Your task to perform on an android device: open chrome privacy settings Image 0: 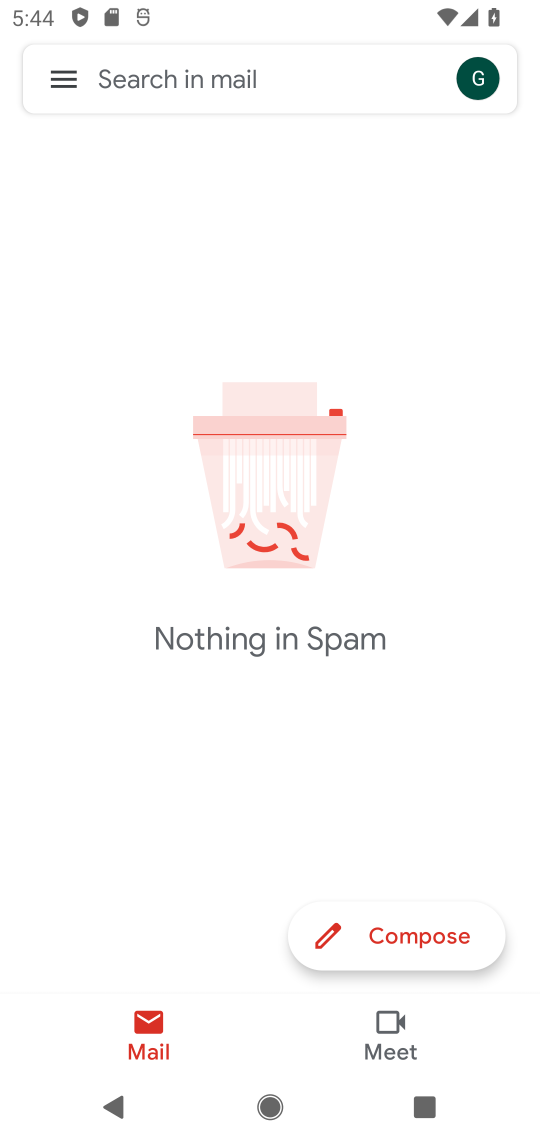
Step 0: press back button
Your task to perform on an android device: open chrome privacy settings Image 1: 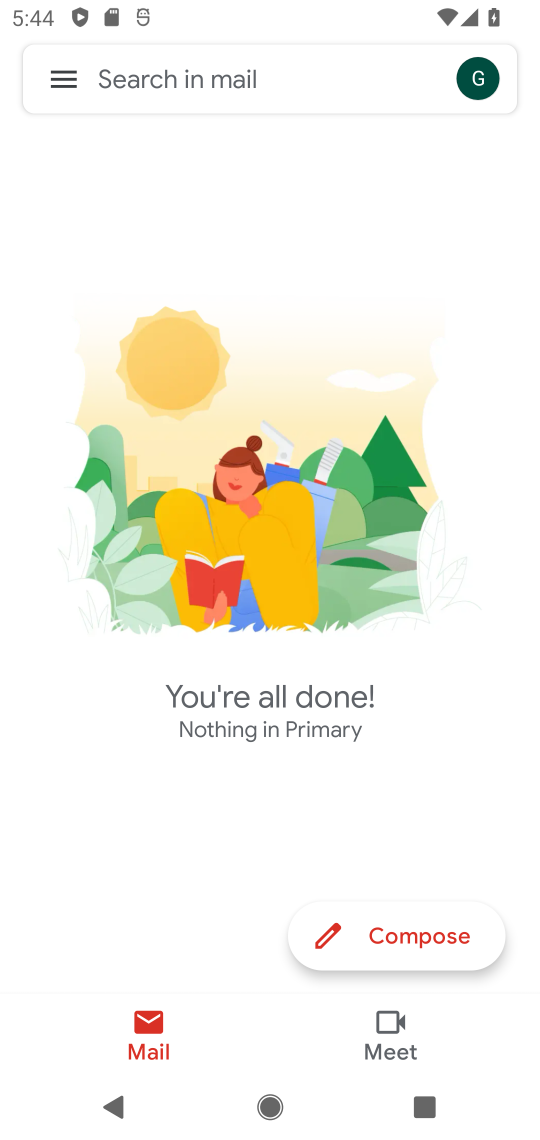
Step 1: press home button
Your task to perform on an android device: open chrome privacy settings Image 2: 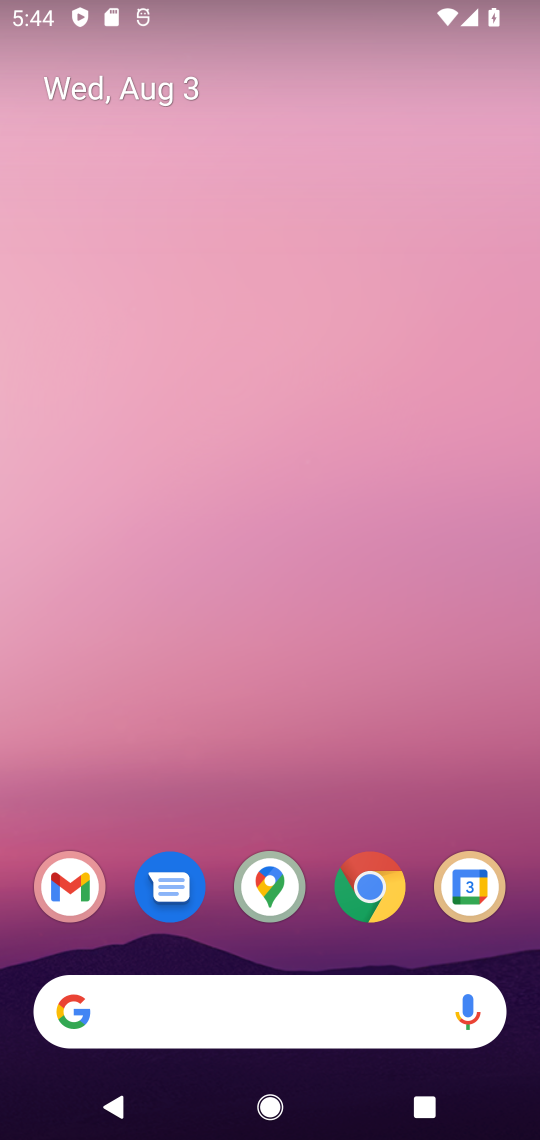
Step 2: drag from (201, 958) to (155, 86)
Your task to perform on an android device: open chrome privacy settings Image 3: 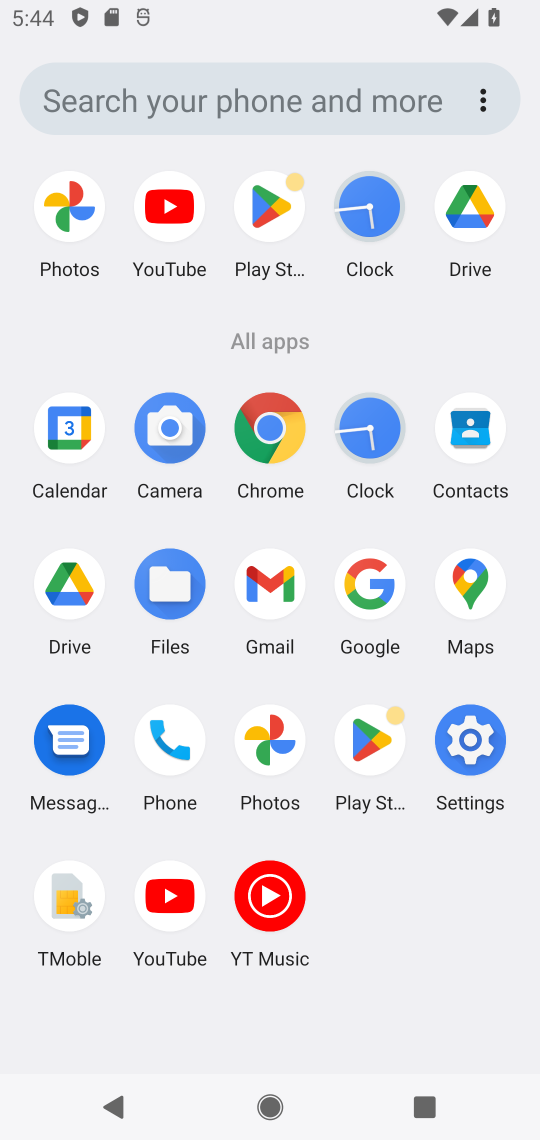
Step 3: click (260, 455)
Your task to perform on an android device: open chrome privacy settings Image 4: 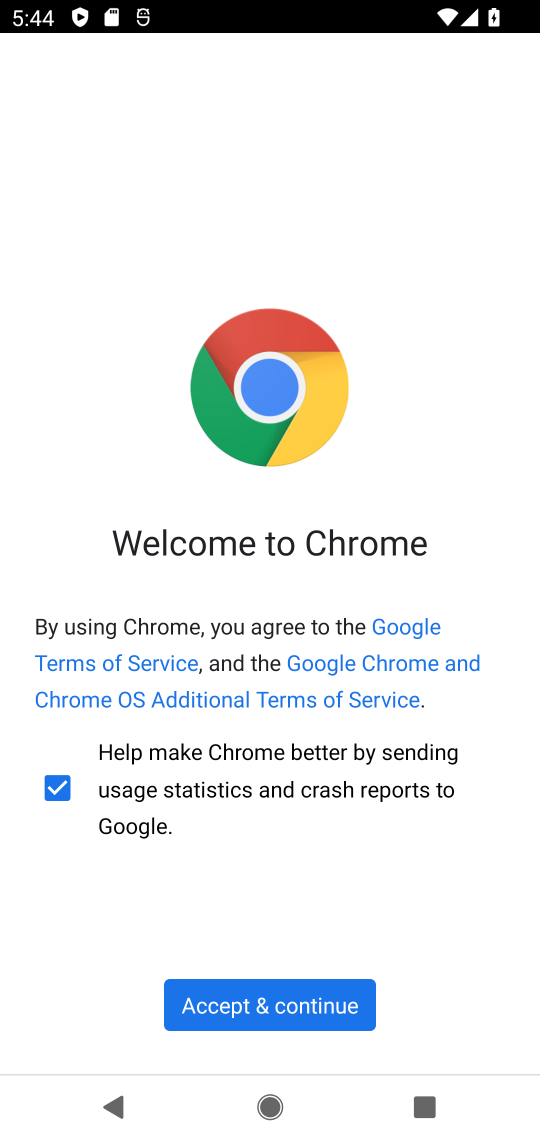
Step 4: click (278, 994)
Your task to perform on an android device: open chrome privacy settings Image 5: 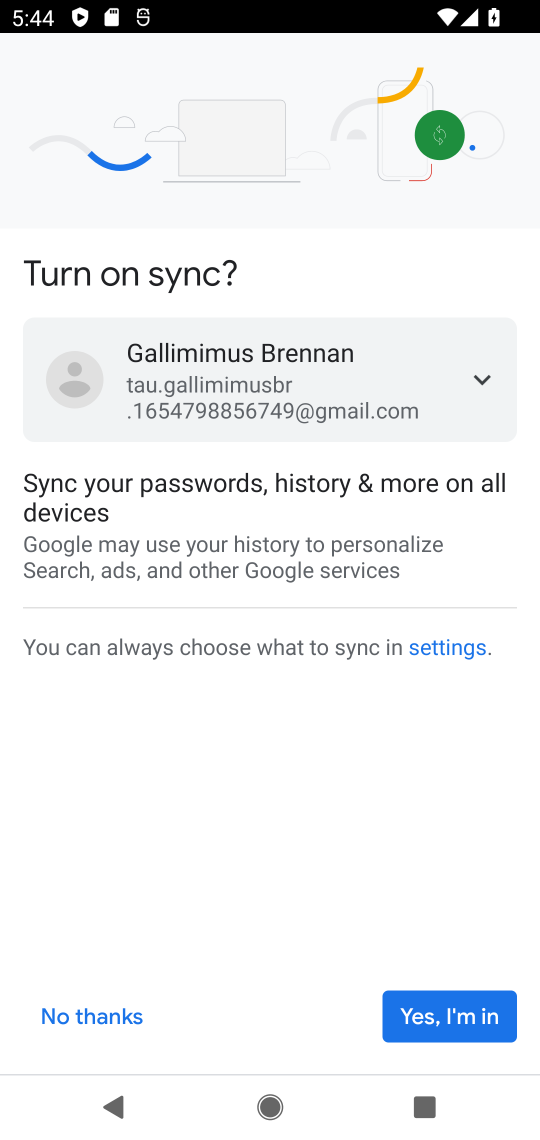
Step 5: click (401, 1017)
Your task to perform on an android device: open chrome privacy settings Image 6: 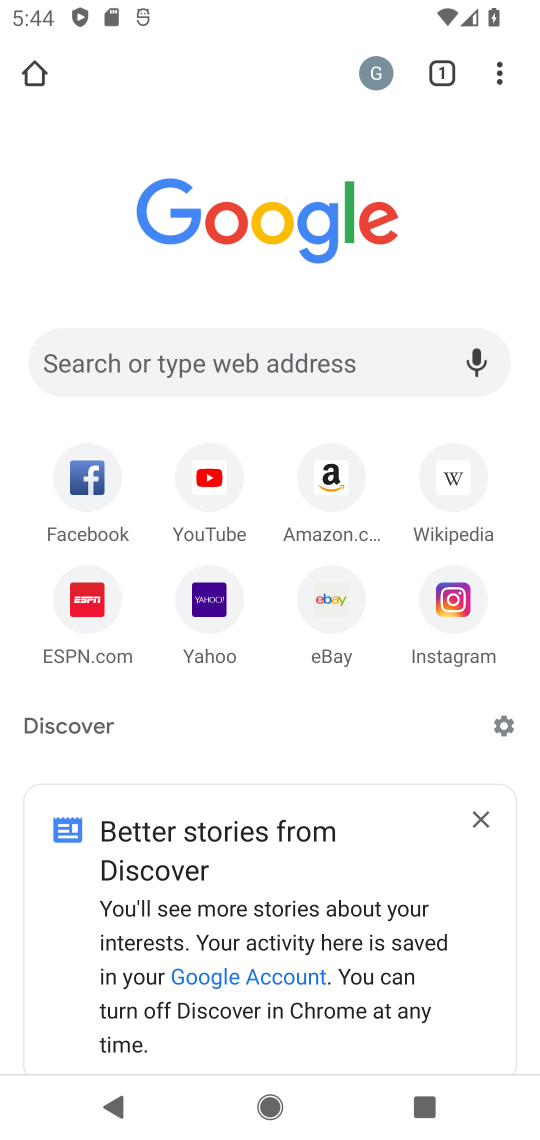
Step 6: drag from (508, 75) to (250, 657)
Your task to perform on an android device: open chrome privacy settings Image 7: 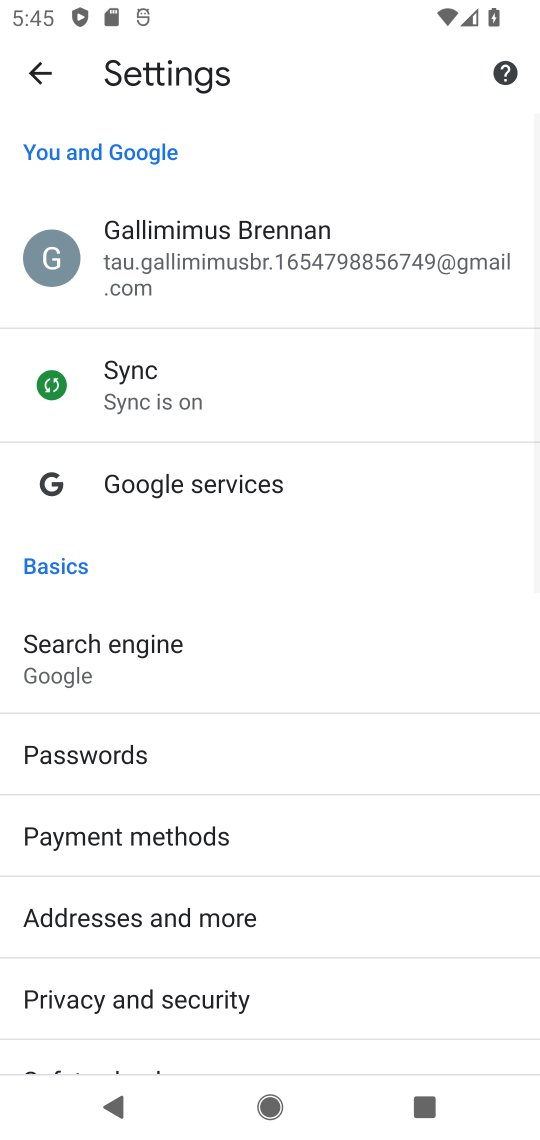
Step 7: drag from (210, 874) to (128, 162)
Your task to perform on an android device: open chrome privacy settings Image 8: 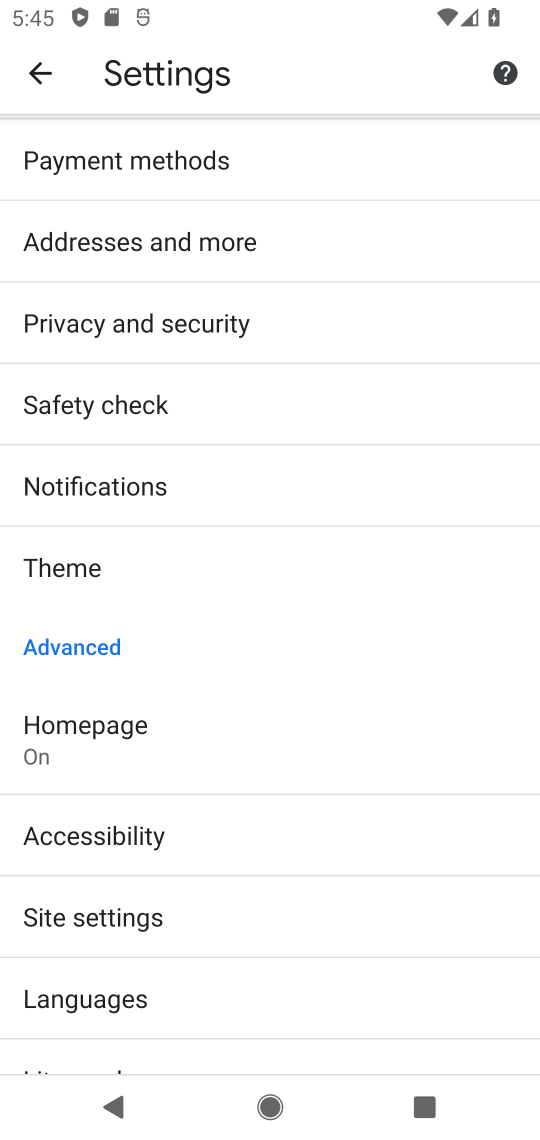
Step 8: drag from (134, 900) to (159, 246)
Your task to perform on an android device: open chrome privacy settings Image 9: 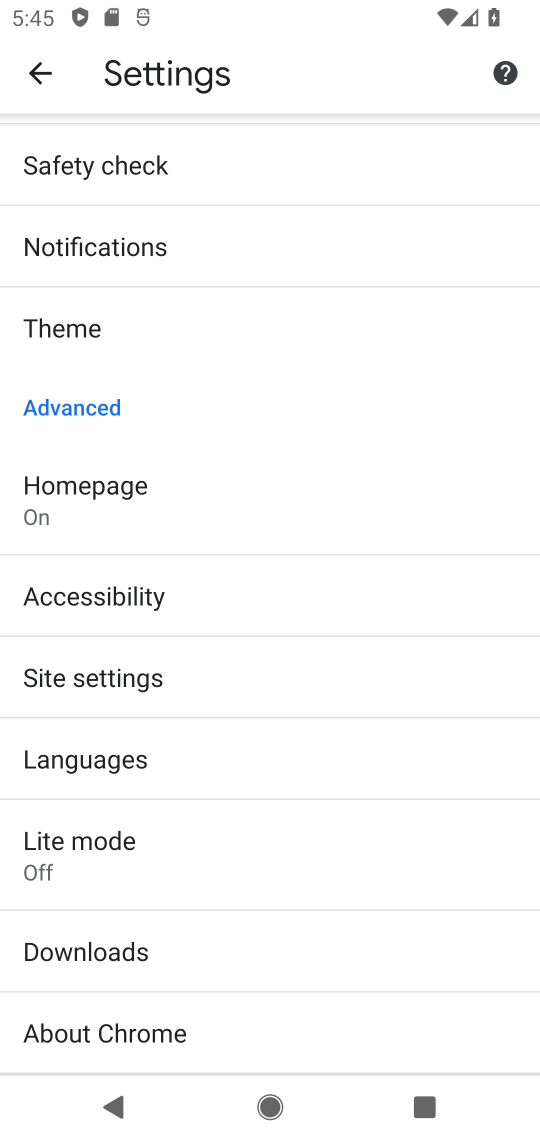
Step 9: drag from (202, 846) to (211, 124)
Your task to perform on an android device: open chrome privacy settings Image 10: 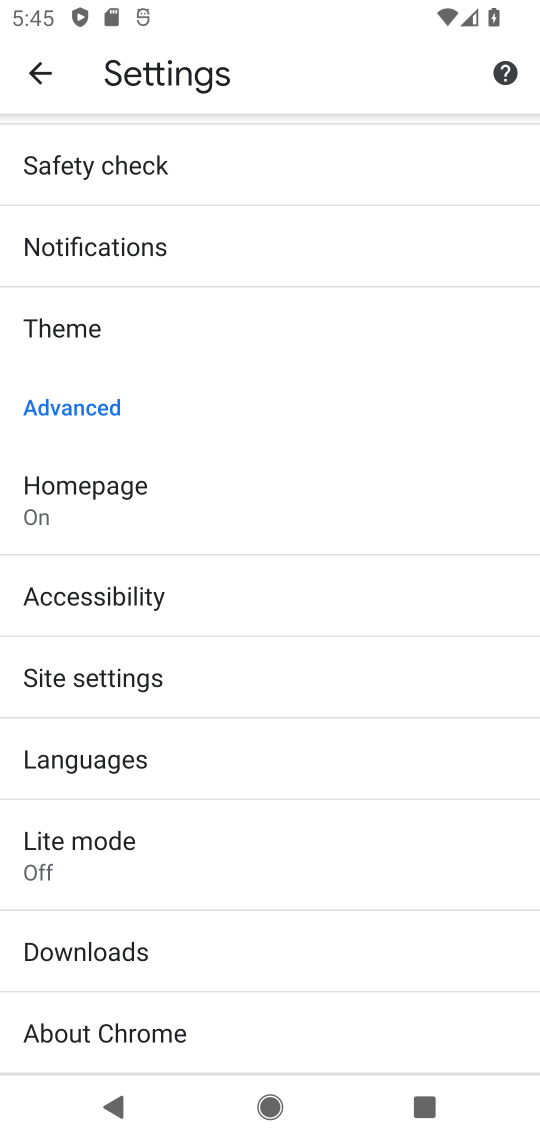
Step 10: drag from (233, 283) to (180, 1106)
Your task to perform on an android device: open chrome privacy settings Image 11: 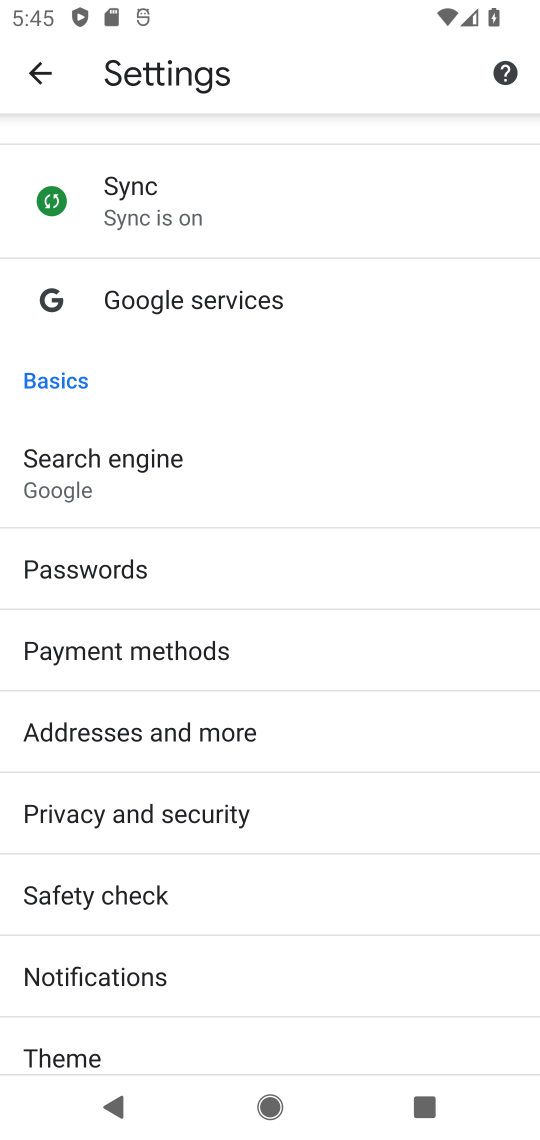
Step 11: click (176, 818)
Your task to perform on an android device: open chrome privacy settings Image 12: 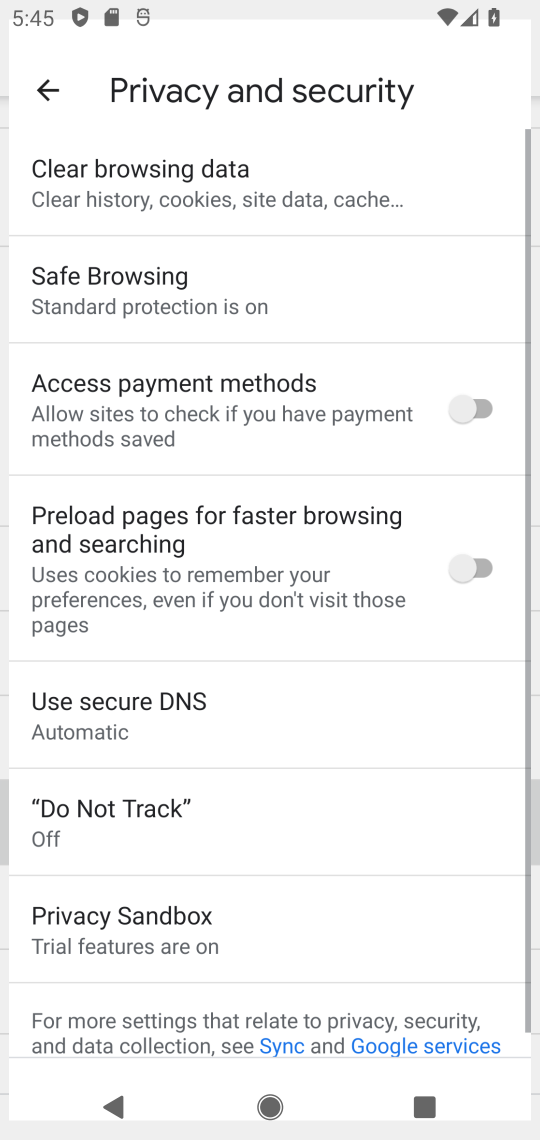
Step 12: task complete